Your task to perform on an android device: set default search engine in the chrome app Image 0: 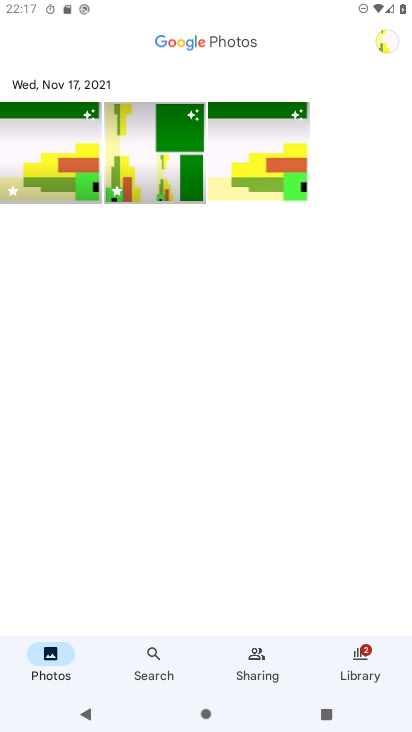
Step 0: press home button
Your task to perform on an android device: set default search engine in the chrome app Image 1: 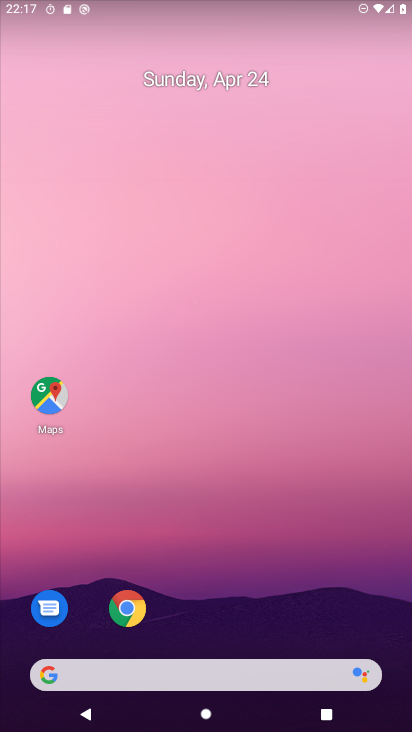
Step 1: click (122, 607)
Your task to perform on an android device: set default search engine in the chrome app Image 2: 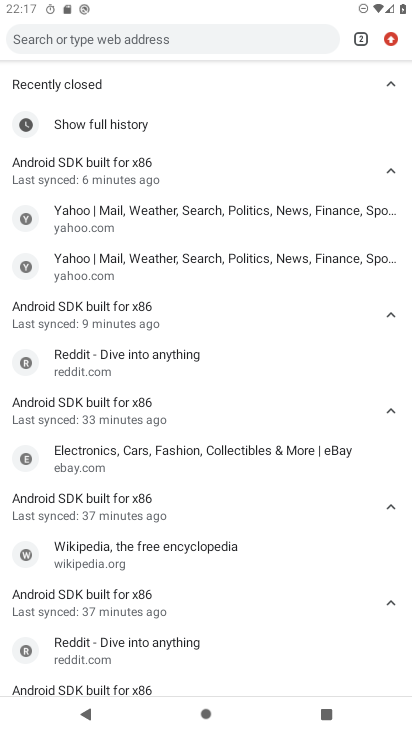
Step 2: click (389, 40)
Your task to perform on an android device: set default search engine in the chrome app Image 3: 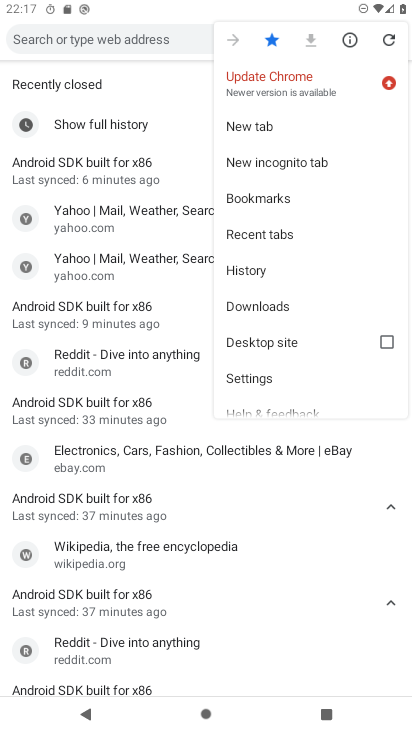
Step 3: click (267, 373)
Your task to perform on an android device: set default search engine in the chrome app Image 4: 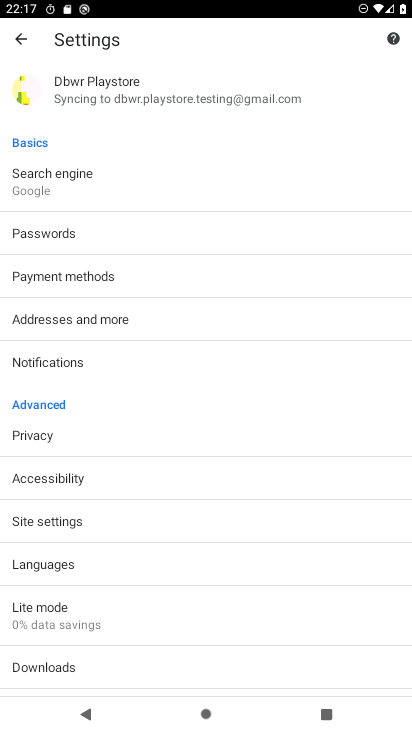
Step 4: click (93, 183)
Your task to perform on an android device: set default search engine in the chrome app Image 5: 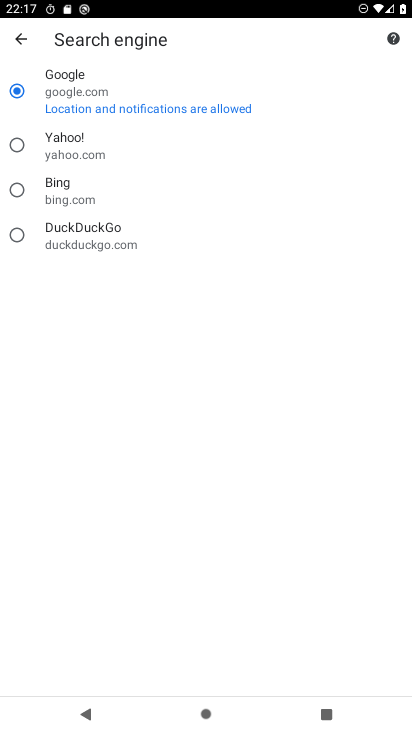
Step 5: task complete